Your task to perform on an android device: change the clock style Image 0: 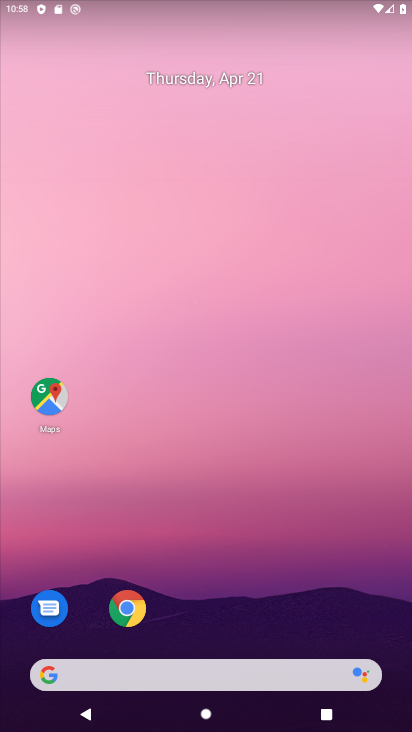
Step 0: drag from (209, 352) to (234, 299)
Your task to perform on an android device: change the clock style Image 1: 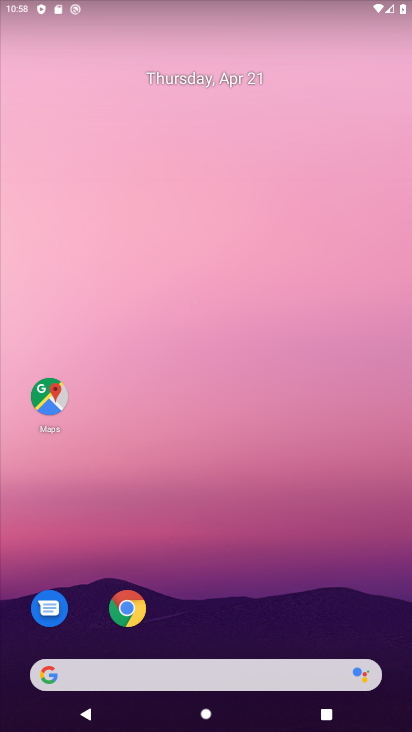
Step 1: drag from (218, 495) to (316, 135)
Your task to perform on an android device: change the clock style Image 2: 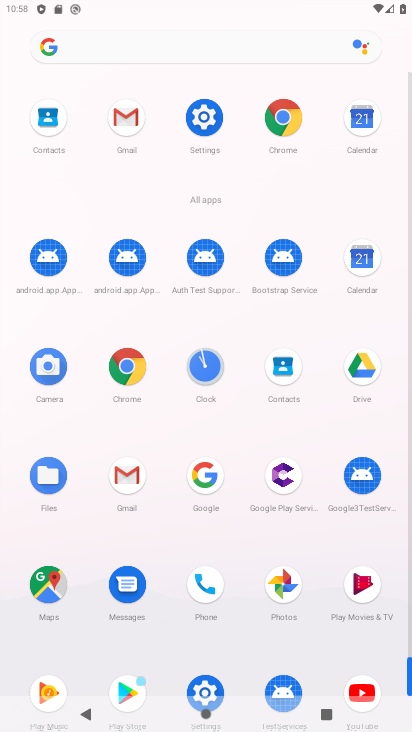
Step 2: click (199, 379)
Your task to perform on an android device: change the clock style Image 3: 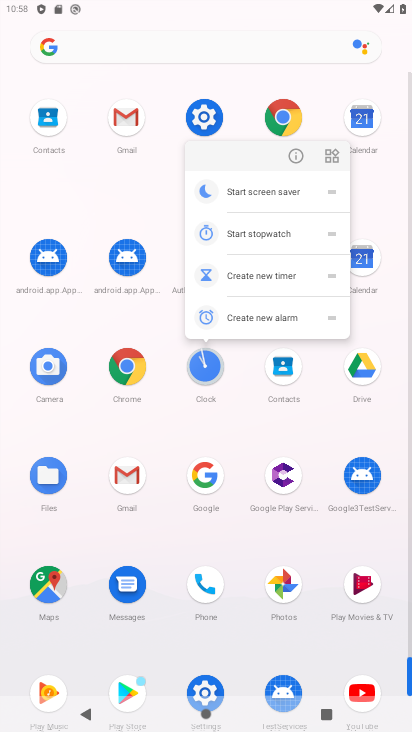
Step 3: click (284, 158)
Your task to perform on an android device: change the clock style Image 4: 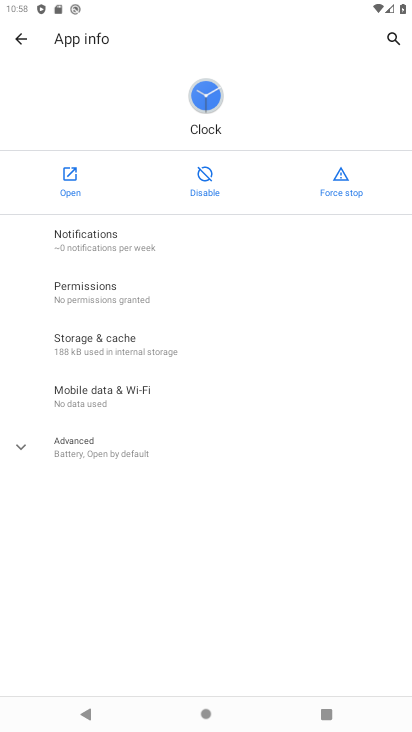
Step 4: click (76, 186)
Your task to perform on an android device: change the clock style Image 5: 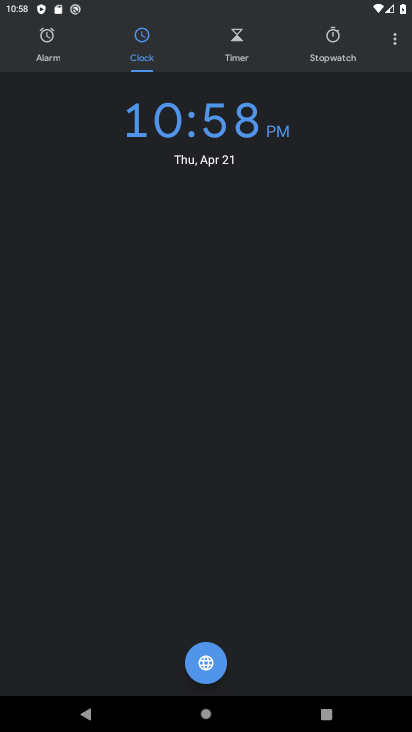
Step 5: click (393, 38)
Your task to perform on an android device: change the clock style Image 6: 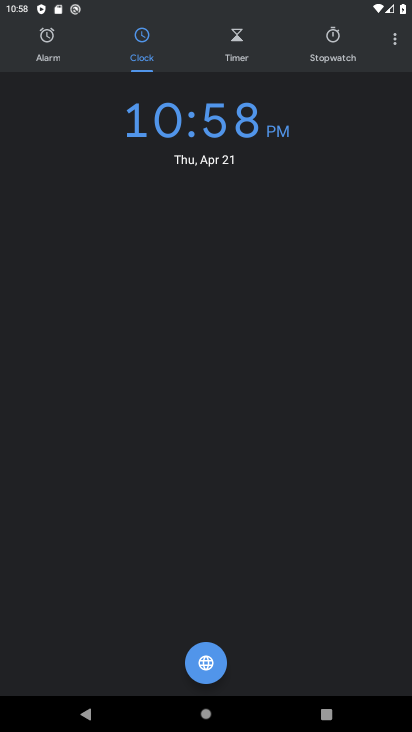
Step 6: click (398, 43)
Your task to perform on an android device: change the clock style Image 7: 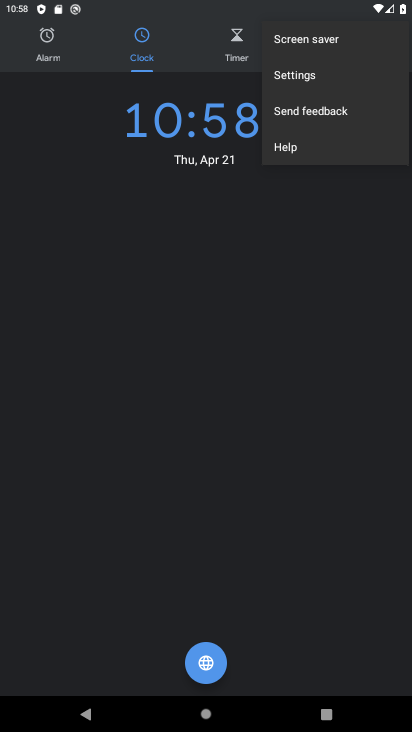
Step 7: click (353, 72)
Your task to perform on an android device: change the clock style Image 8: 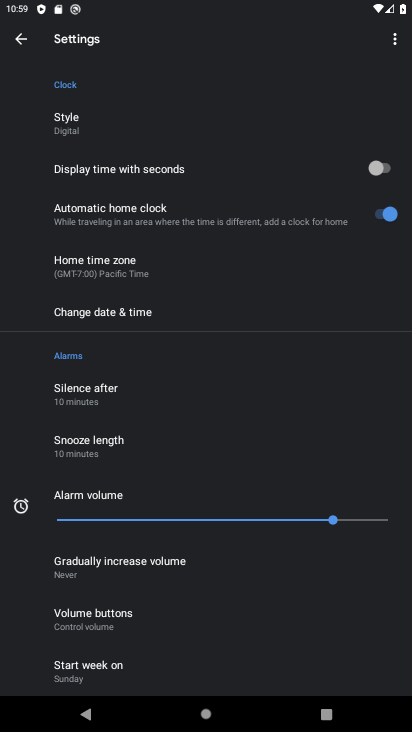
Step 8: click (77, 103)
Your task to perform on an android device: change the clock style Image 9: 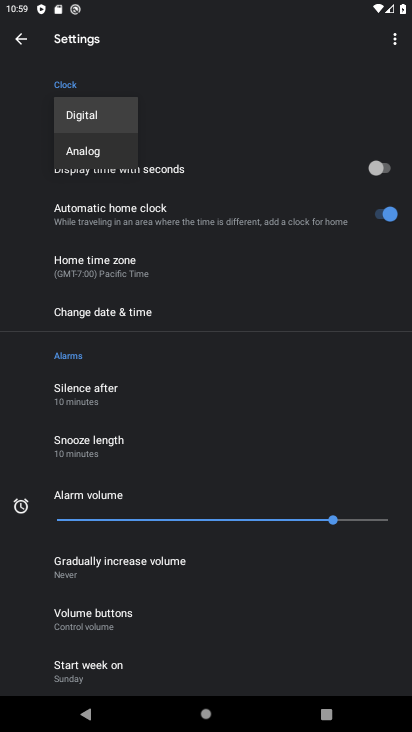
Step 9: click (68, 152)
Your task to perform on an android device: change the clock style Image 10: 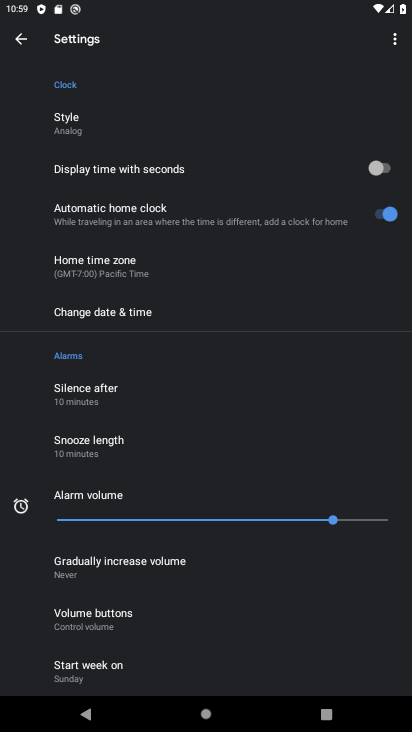
Step 10: task complete